Your task to perform on an android device: snooze an email in the gmail app Image 0: 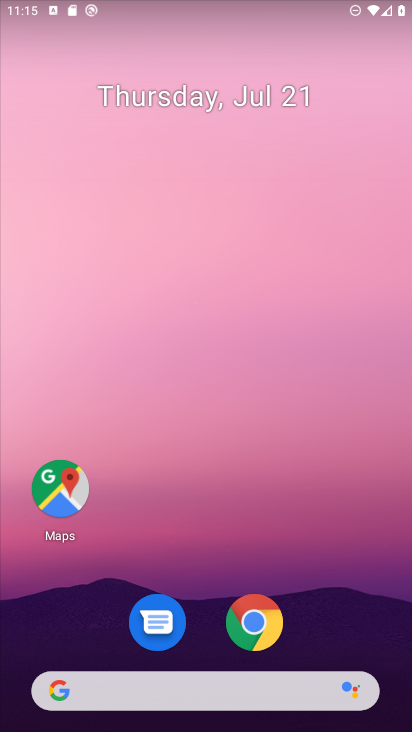
Step 0: drag from (221, 620) to (280, 1)
Your task to perform on an android device: snooze an email in the gmail app Image 1: 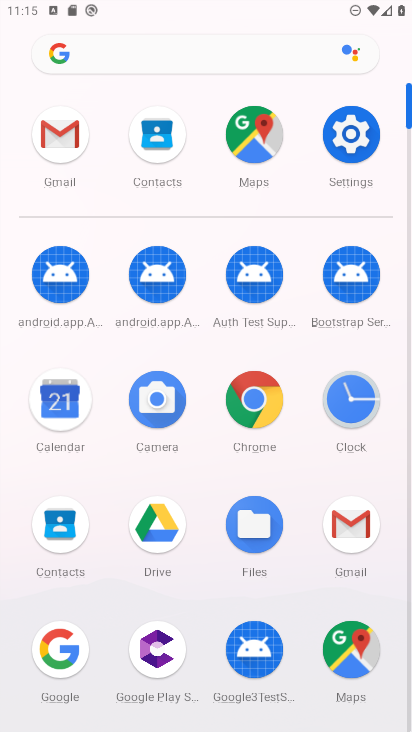
Step 1: click (74, 129)
Your task to perform on an android device: snooze an email in the gmail app Image 2: 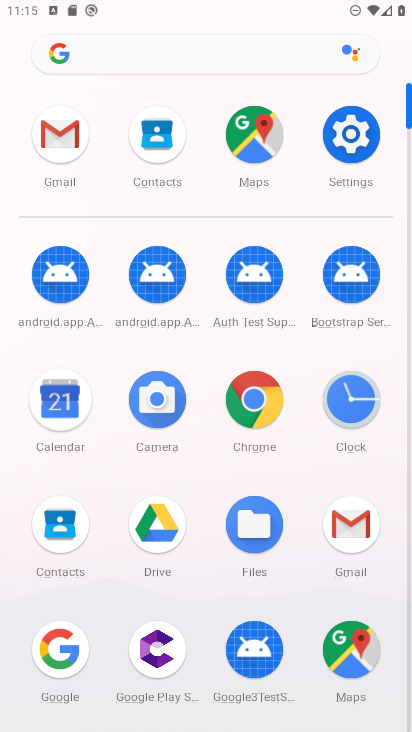
Step 2: click (74, 129)
Your task to perform on an android device: snooze an email in the gmail app Image 3: 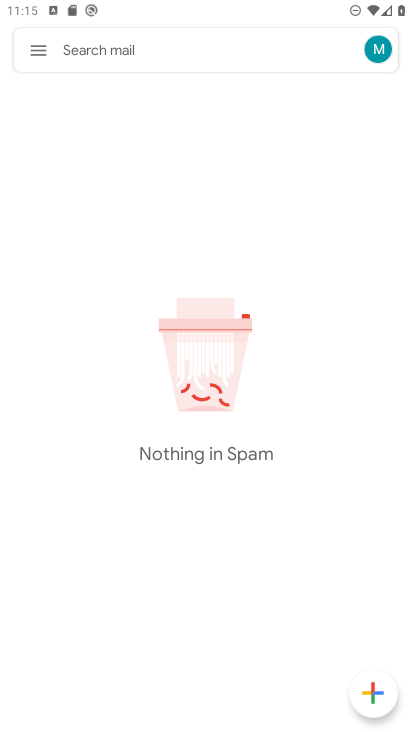
Step 3: click (39, 48)
Your task to perform on an android device: snooze an email in the gmail app Image 4: 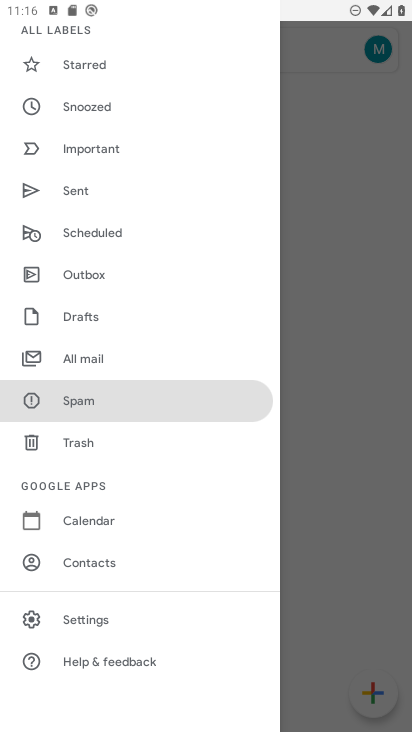
Step 4: click (146, 353)
Your task to perform on an android device: snooze an email in the gmail app Image 5: 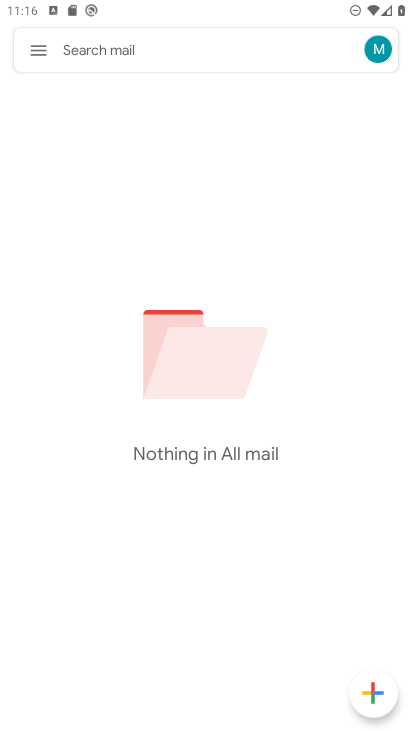
Step 5: task complete